Your task to perform on an android device: check google app version Image 0: 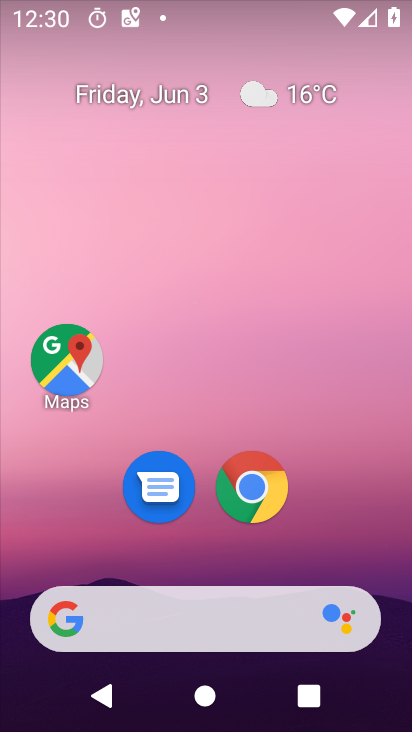
Step 0: drag from (222, 615) to (244, 19)
Your task to perform on an android device: check google app version Image 1: 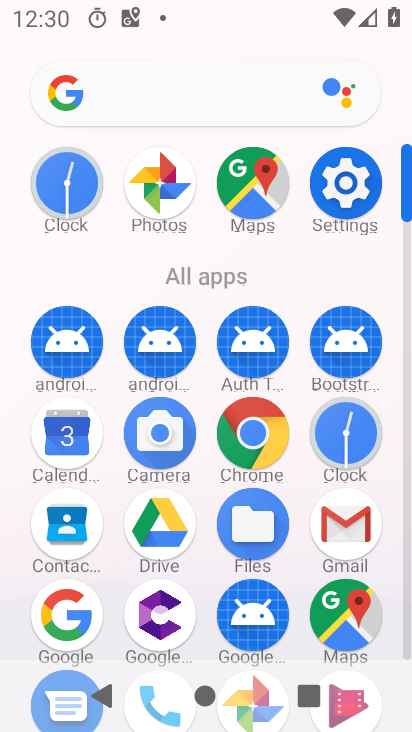
Step 1: click (84, 593)
Your task to perform on an android device: check google app version Image 2: 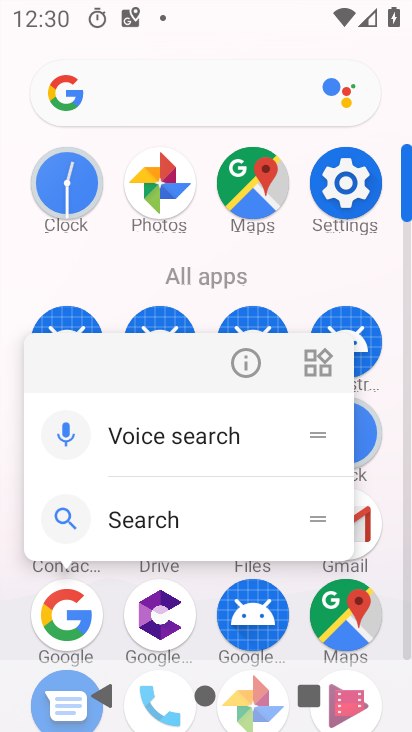
Step 2: click (244, 374)
Your task to perform on an android device: check google app version Image 3: 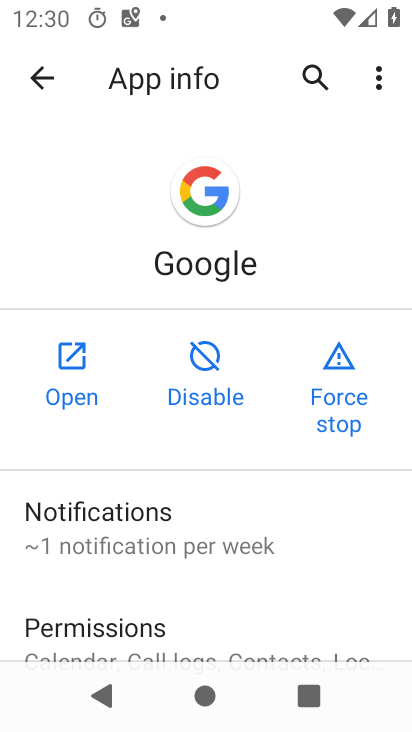
Step 3: drag from (212, 576) to (171, 66)
Your task to perform on an android device: check google app version Image 4: 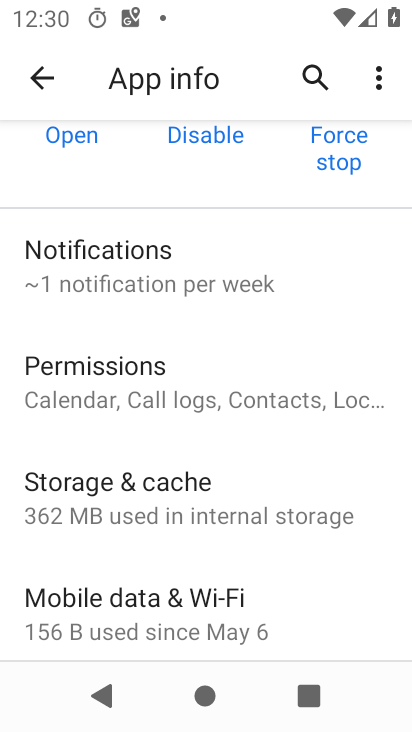
Step 4: drag from (179, 581) to (126, 21)
Your task to perform on an android device: check google app version Image 5: 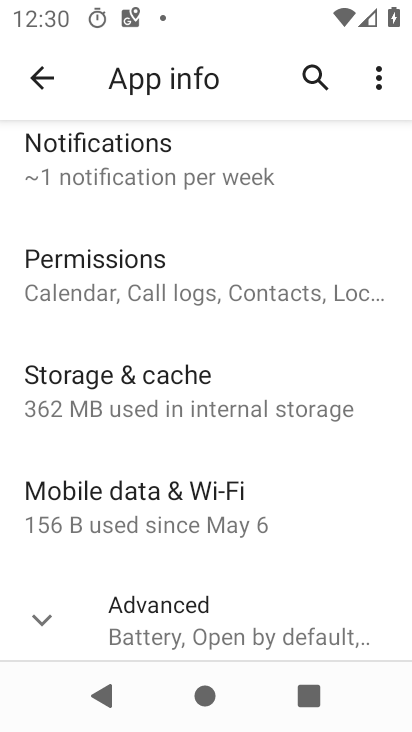
Step 5: click (175, 610)
Your task to perform on an android device: check google app version Image 6: 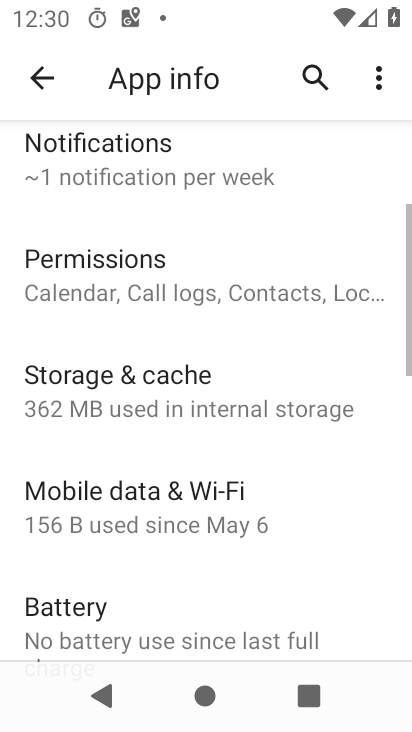
Step 6: task complete